Your task to perform on an android device: change the clock display to digital Image 0: 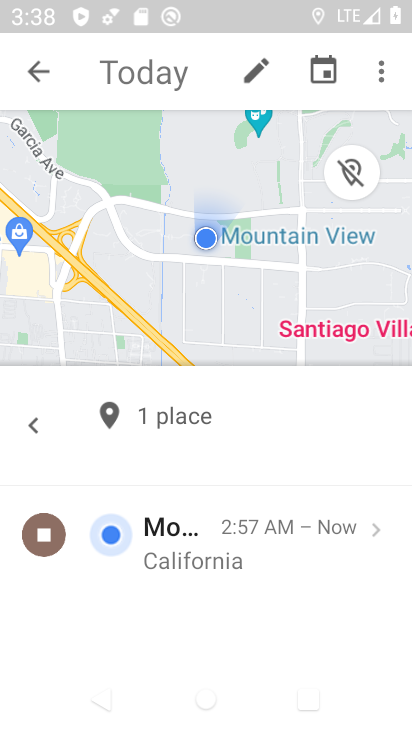
Step 0: press home button
Your task to perform on an android device: change the clock display to digital Image 1: 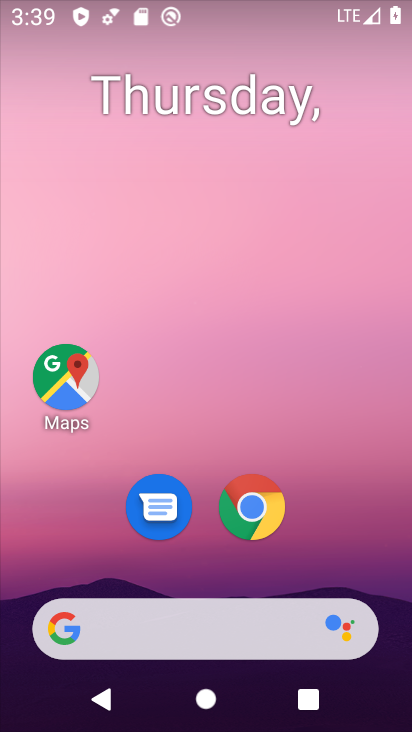
Step 1: drag from (340, 528) to (340, 269)
Your task to perform on an android device: change the clock display to digital Image 2: 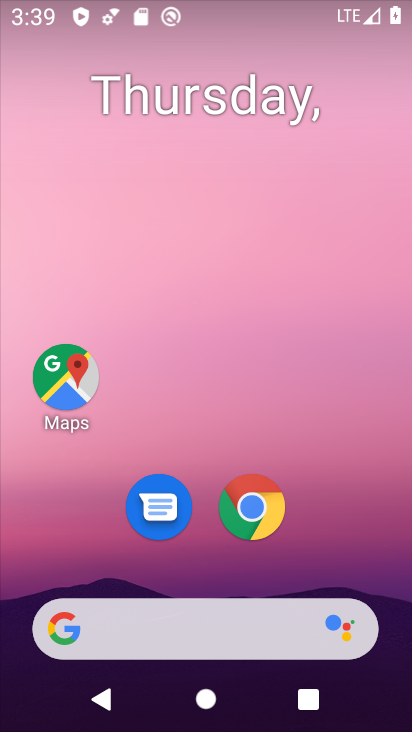
Step 2: drag from (361, 559) to (303, 102)
Your task to perform on an android device: change the clock display to digital Image 3: 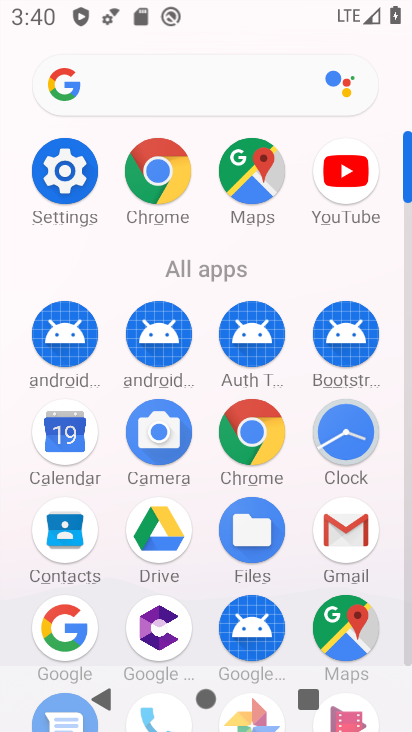
Step 3: click (365, 445)
Your task to perform on an android device: change the clock display to digital Image 4: 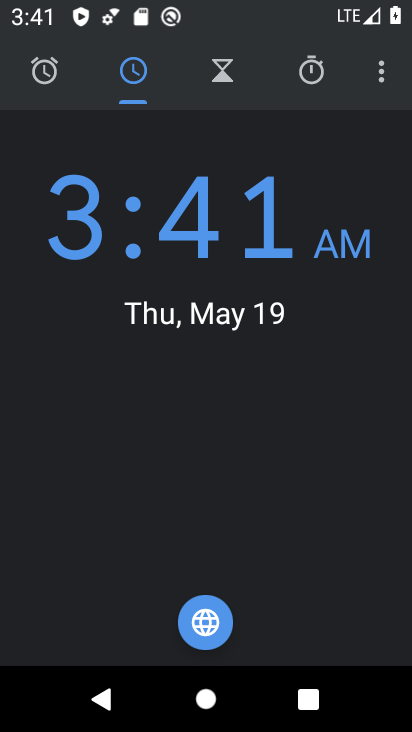
Step 4: click (393, 71)
Your task to perform on an android device: change the clock display to digital Image 5: 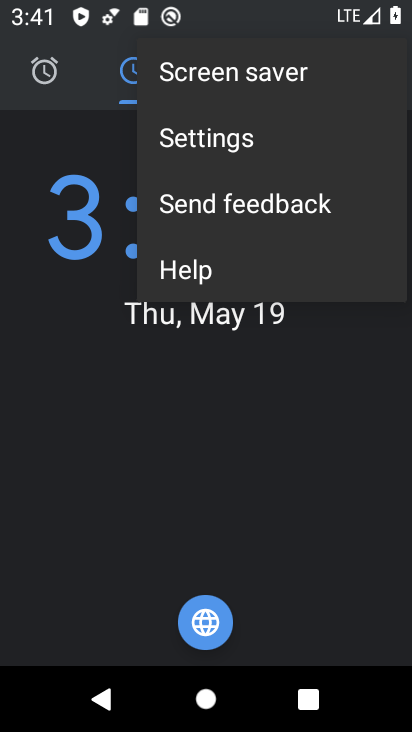
Step 5: click (272, 133)
Your task to perform on an android device: change the clock display to digital Image 6: 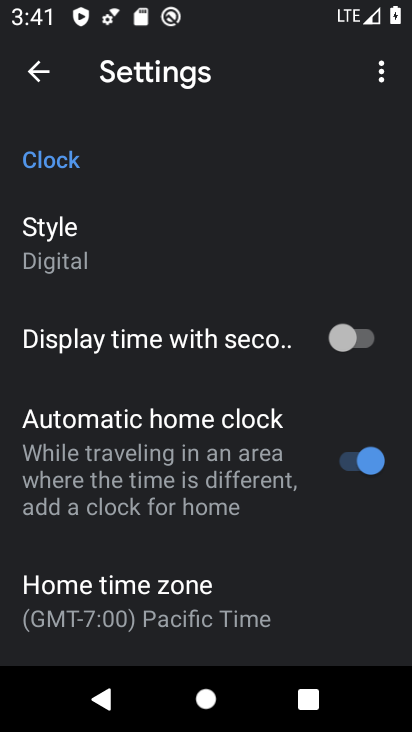
Step 6: click (113, 251)
Your task to perform on an android device: change the clock display to digital Image 7: 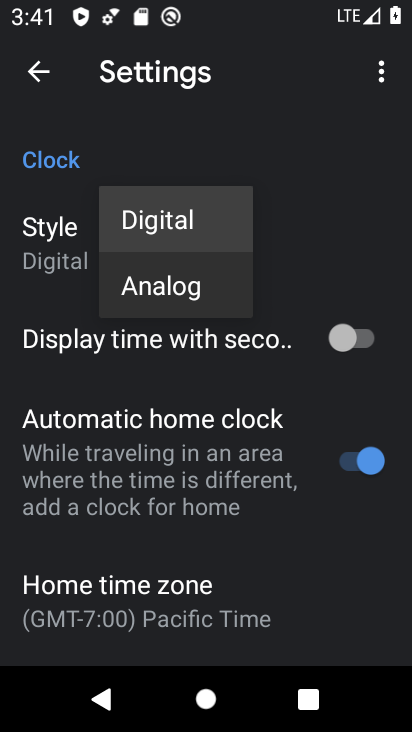
Step 7: click (134, 231)
Your task to perform on an android device: change the clock display to digital Image 8: 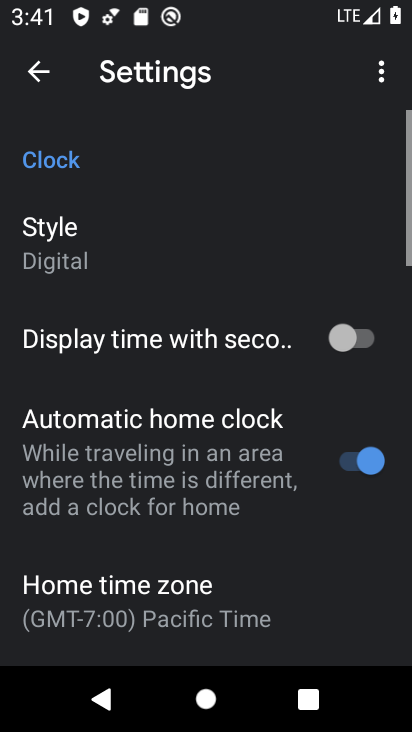
Step 8: task complete